Your task to perform on an android device: open the mobile data screen to see how much data has been used Image 0: 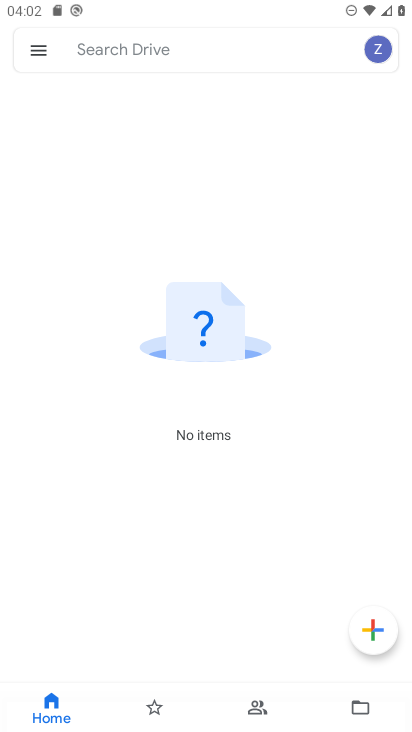
Step 0: press home button
Your task to perform on an android device: open the mobile data screen to see how much data has been used Image 1: 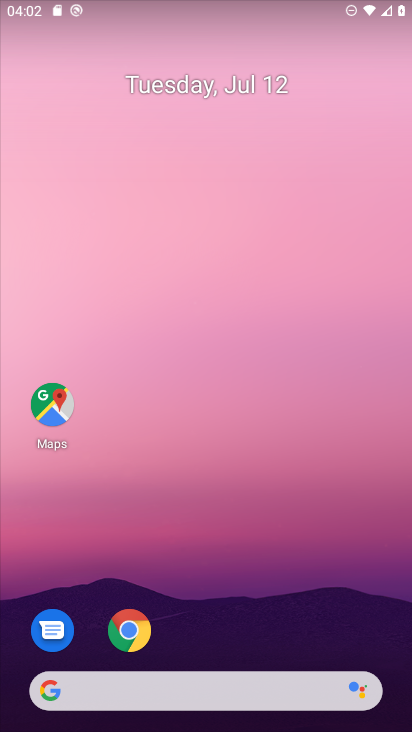
Step 1: drag from (398, 699) to (346, 219)
Your task to perform on an android device: open the mobile data screen to see how much data has been used Image 2: 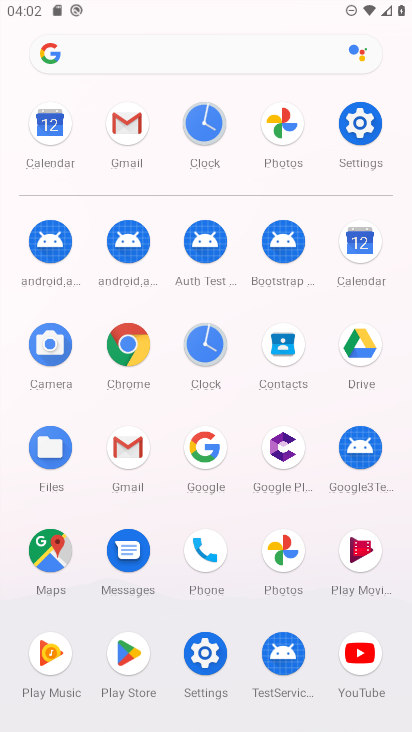
Step 2: click (204, 655)
Your task to perform on an android device: open the mobile data screen to see how much data has been used Image 3: 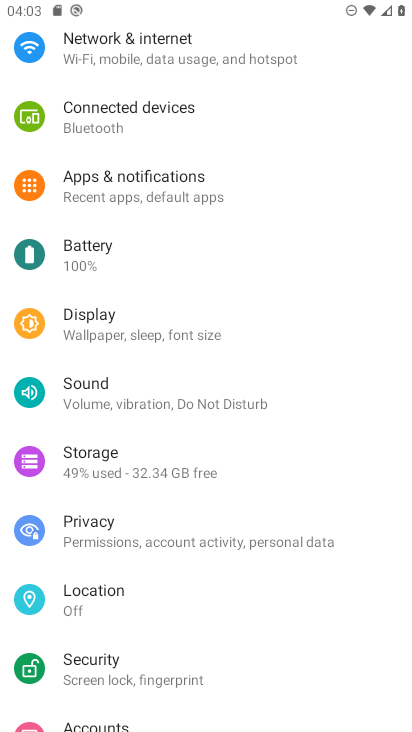
Step 3: click (109, 44)
Your task to perform on an android device: open the mobile data screen to see how much data has been used Image 4: 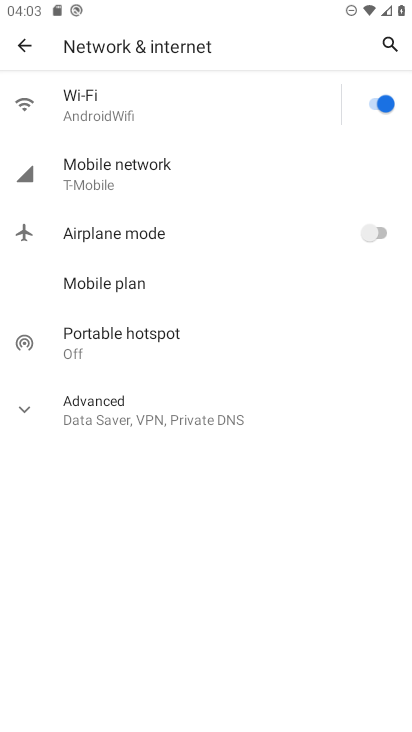
Step 4: click (96, 166)
Your task to perform on an android device: open the mobile data screen to see how much data has been used Image 5: 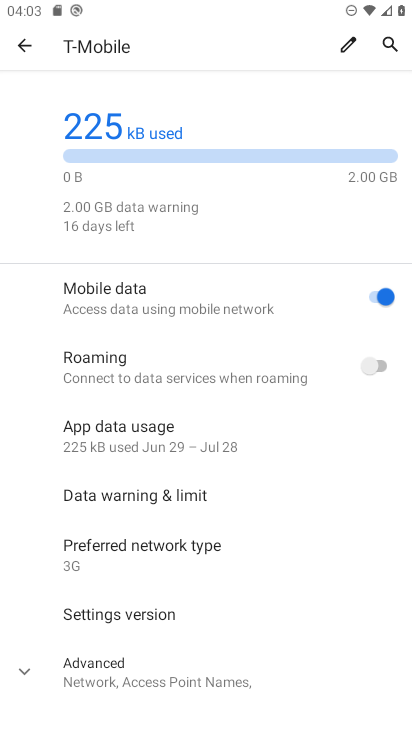
Step 5: task complete